Your task to perform on an android device: snooze an email in the gmail app Image 0: 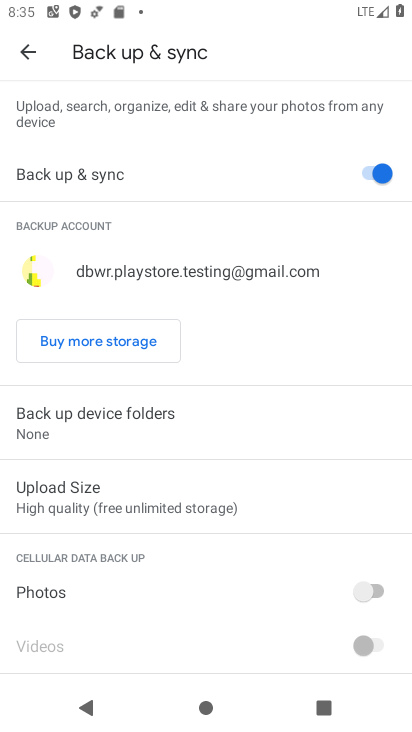
Step 0: press home button
Your task to perform on an android device: snooze an email in the gmail app Image 1: 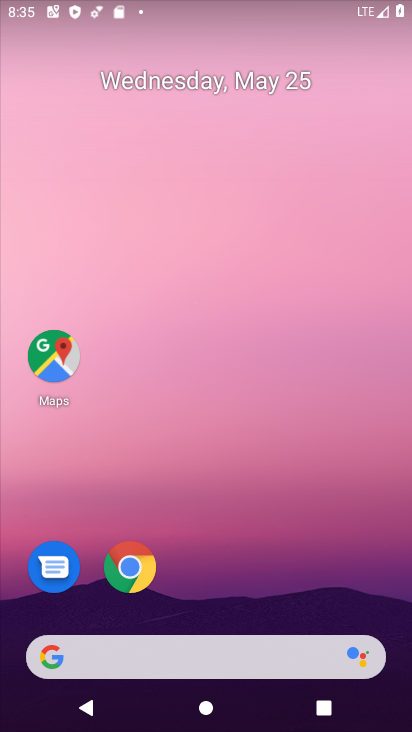
Step 1: drag from (263, 500) to (304, 0)
Your task to perform on an android device: snooze an email in the gmail app Image 2: 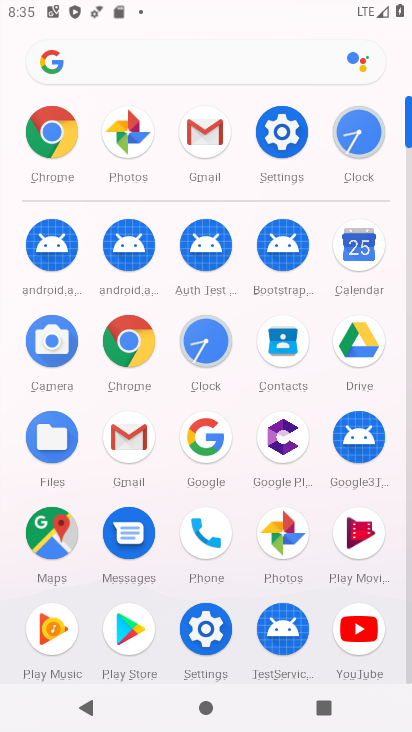
Step 2: click (207, 126)
Your task to perform on an android device: snooze an email in the gmail app Image 3: 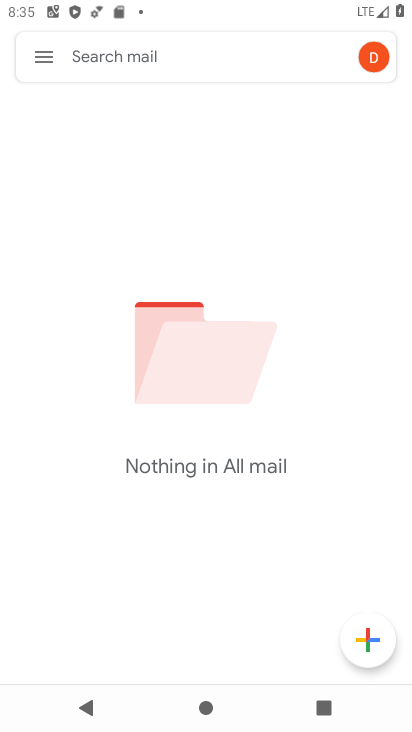
Step 3: task complete